Your task to perform on an android device: turn notification dots on Image 0: 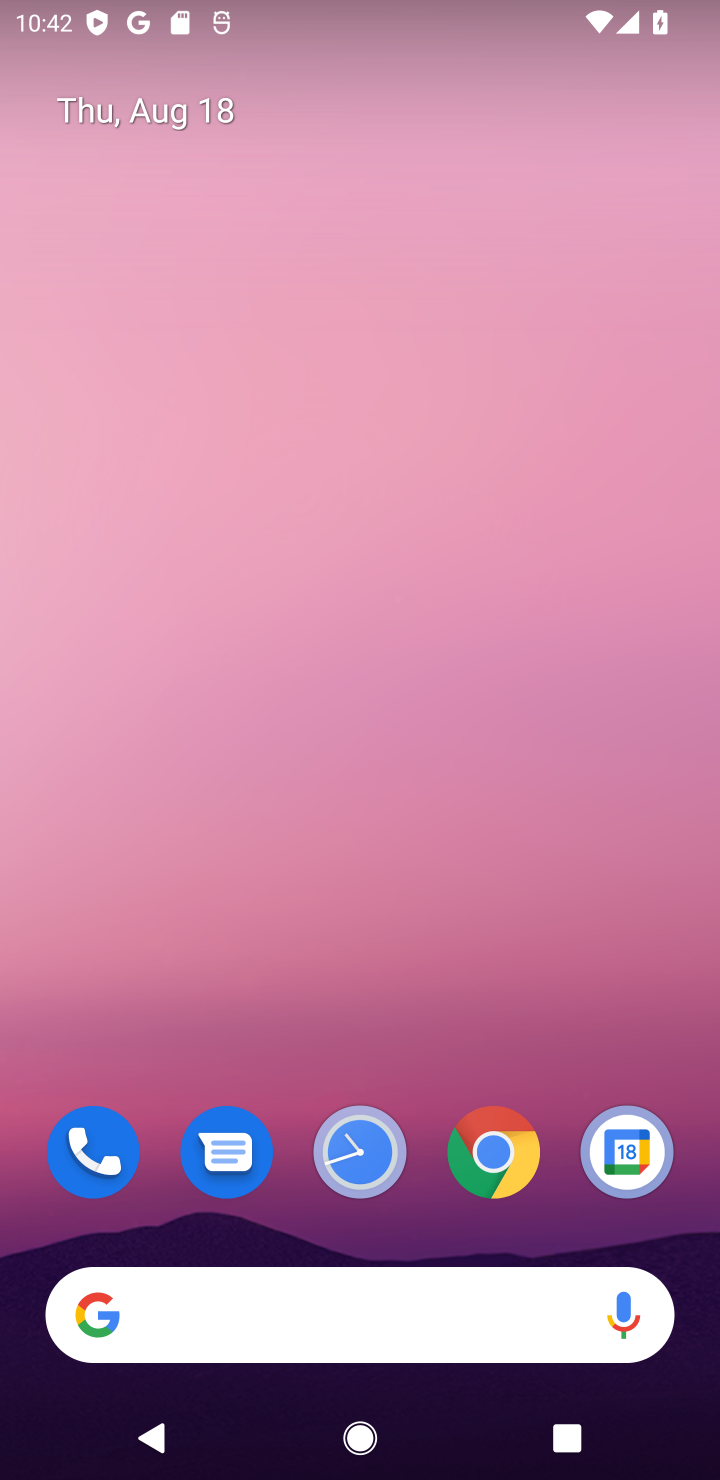
Step 0: drag from (305, 1024) to (398, 0)
Your task to perform on an android device: turn notification dots on Image 1: 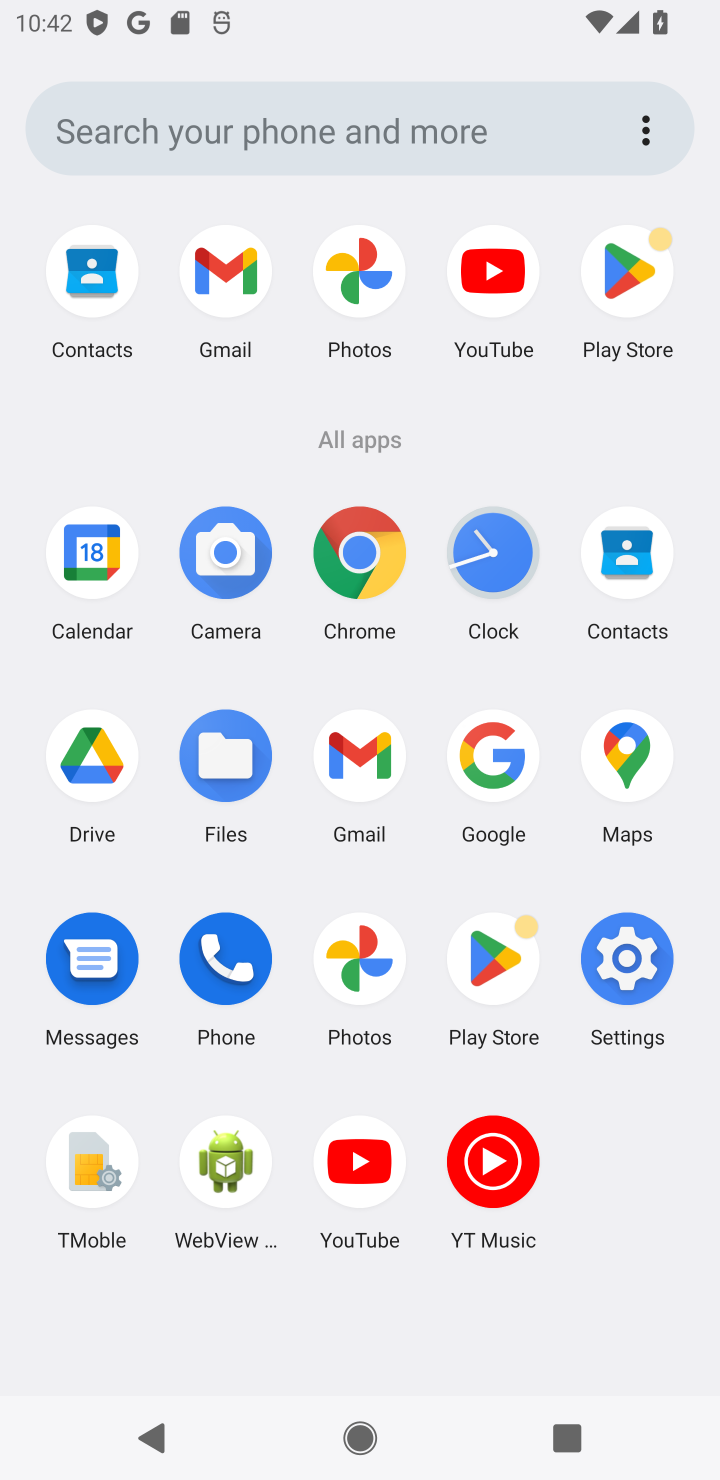
Step 1: click (632, 948)
Your task to perform on an android device: turn notification dots on Image 2: 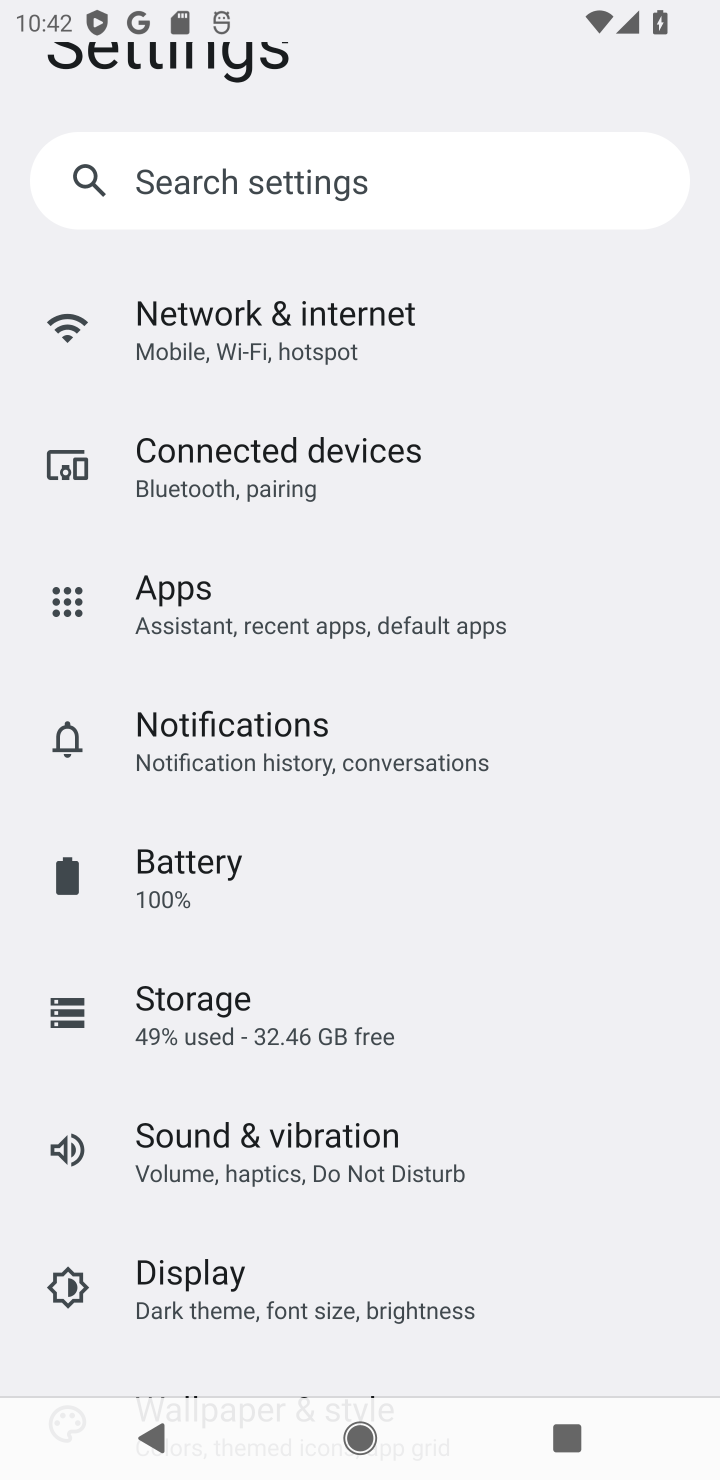
Step 2: click (426, 743)
Your task to perform on an android device: turn notification dots on Image 3: 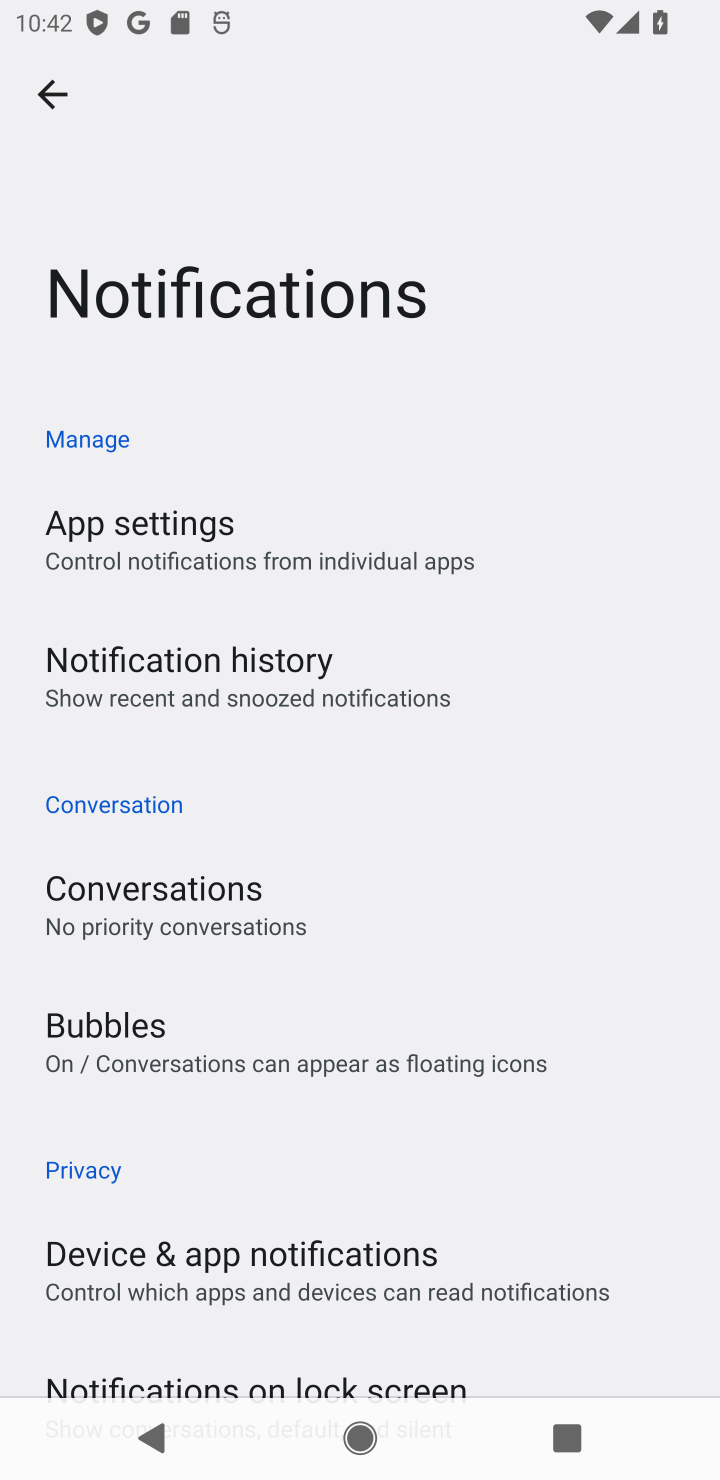
Step 3: task complete